Your task to perform on an android device: What's on my calendar today? Image 0: 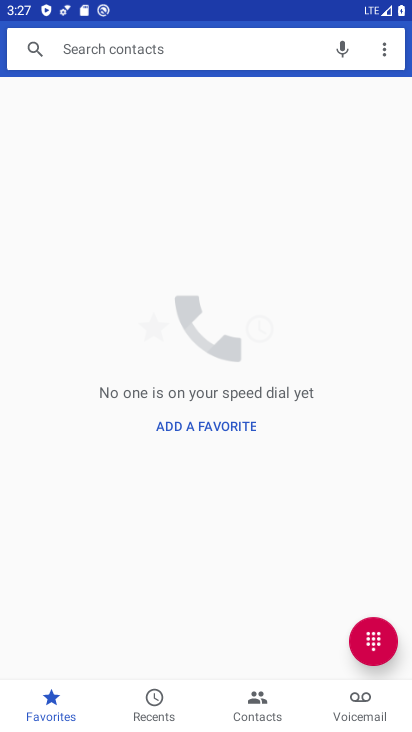
Step 0: press home button
Your task to perform on an android device: What's on my calendar today? Image 1: 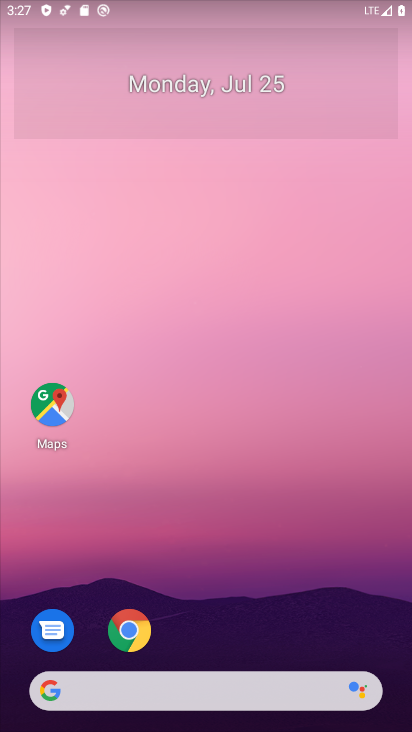
Step 1: drag from (186, 478) to (182, 2)
Your task to perform on an android device: What's on my calendar today? Image 2: 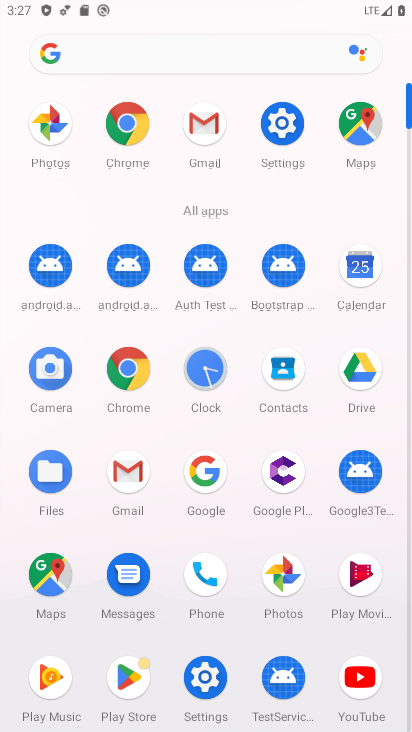
Step 2: click (362, 266)
Your task to perform on an android device: What's on my calendar today? Image 3: 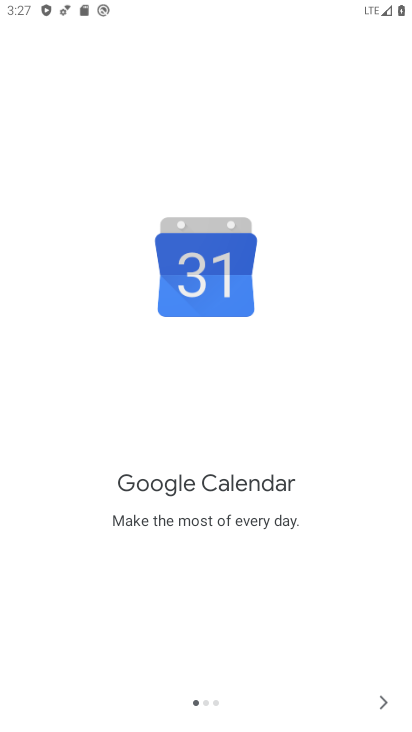
Step 3: click (385, 707)
Your task to perform on an android device: What's on my calendar today? Image 4: 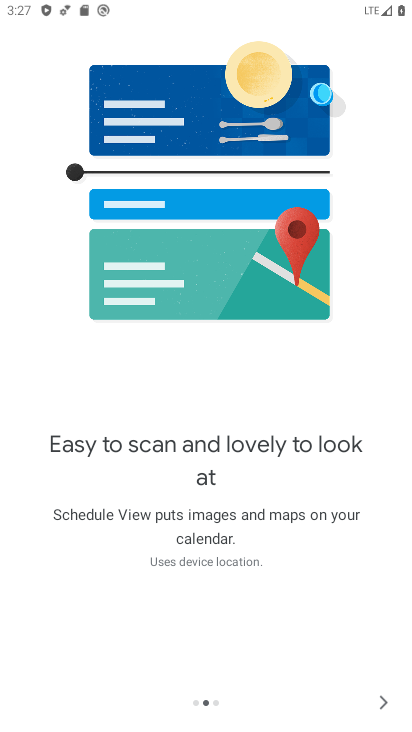
Step 4: click (376, 693)
Your task to perform on an android device: What's on my calendar today? Image 5: 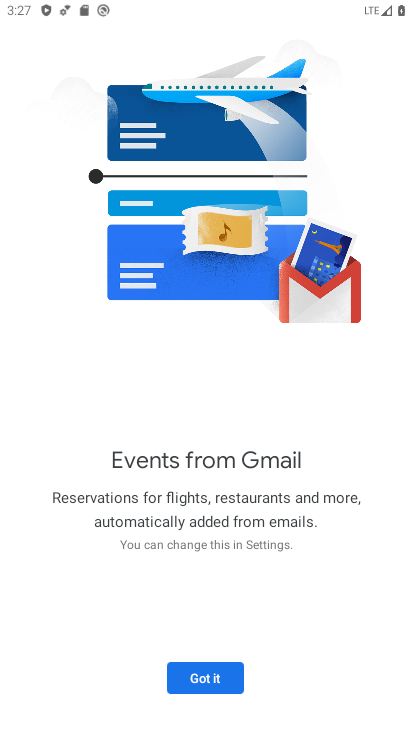
Step 5: click (225, 691)
Your task to perform on an android device: What's on my calendar today? Image 6: 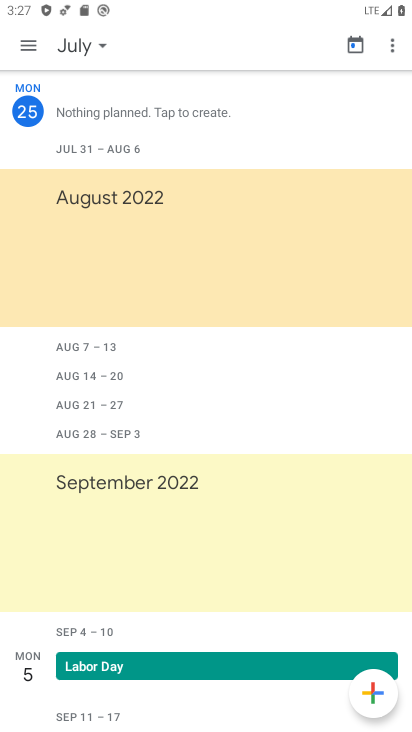
Step 6: click (23, 41)
Your task to perform on an android device: What's on my calendar today? Image 7: 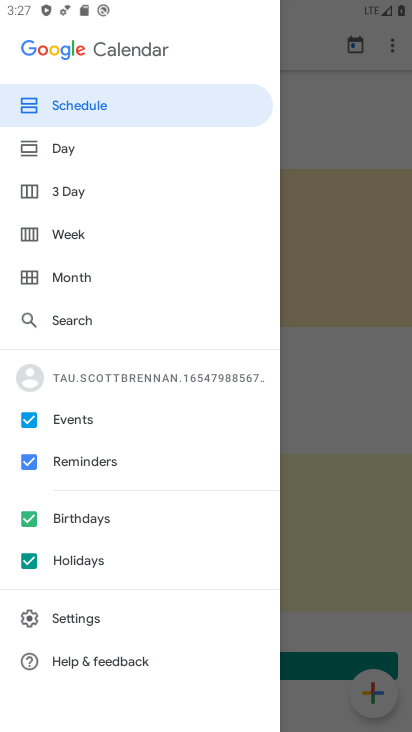
Step 7: click (70, 152)
Your task to perform on an android device: What's on my calendar today? Image 8: 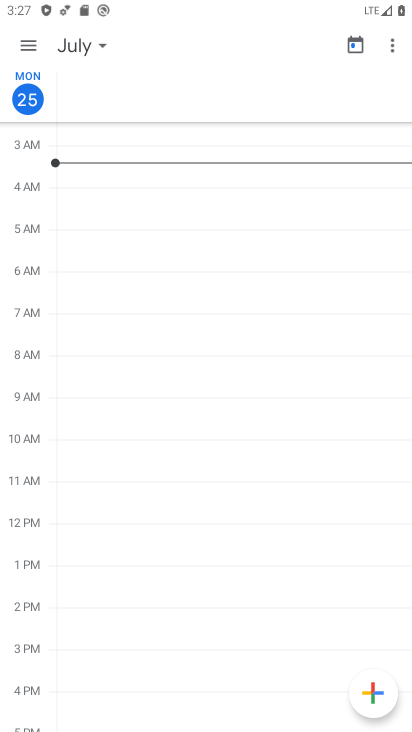
Step 8: task complete